Your task to perform on an android device: check google app version Image 0: 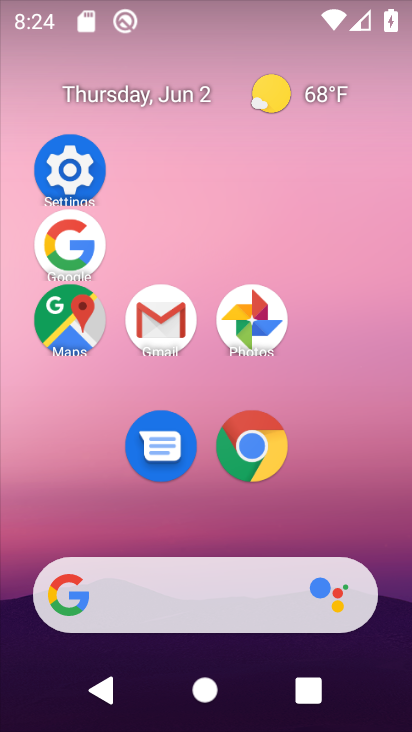
Step 0: click (76, 246)
Your task to perform on an android device: check google app version Image 1: 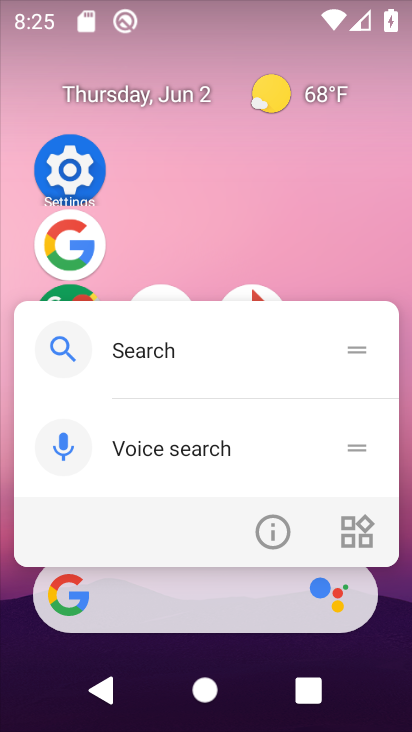
Step 1: click (279, 521)
Your task to perform on an android device: check google app version Image 2: 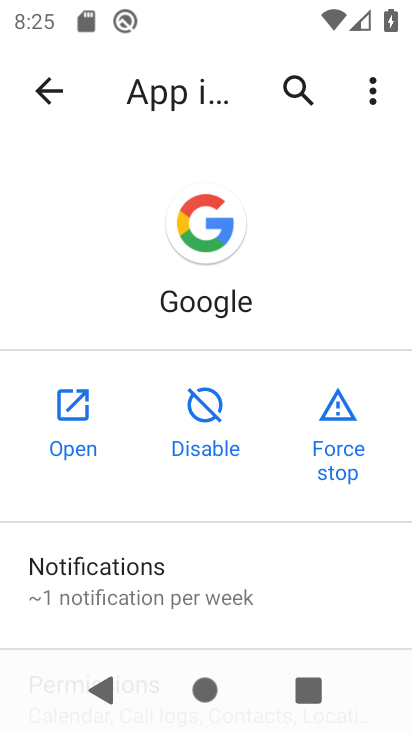
Step 2: drag from (221, 622) to (229, 100)
Your task to perform on an android device: check google app version Image 3: 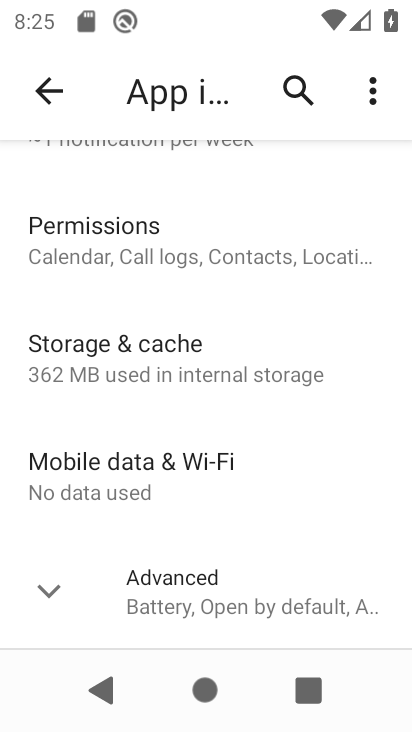
Step 3: click (238, 578)
Your task to perform on an android device: check google app version Image 4: 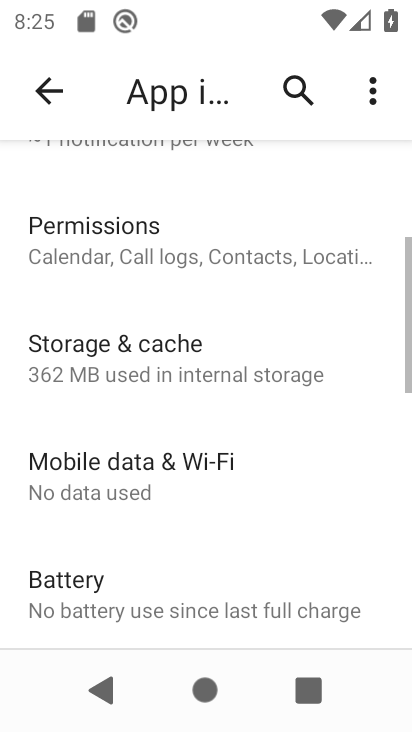
Step 4: task complete